Your task to perform on an android device: Show me popular videos on Youtube Image 0: 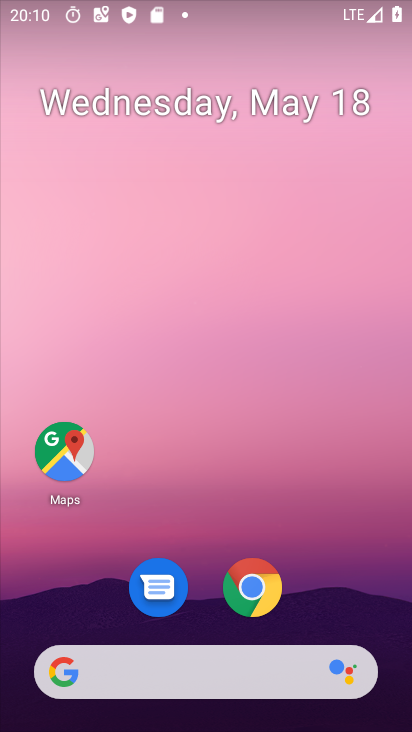
Step 0: drag from (204, 614) to (216, 42)
Your task to perform on an android device: Show me popular videos on Youtube Image 1: 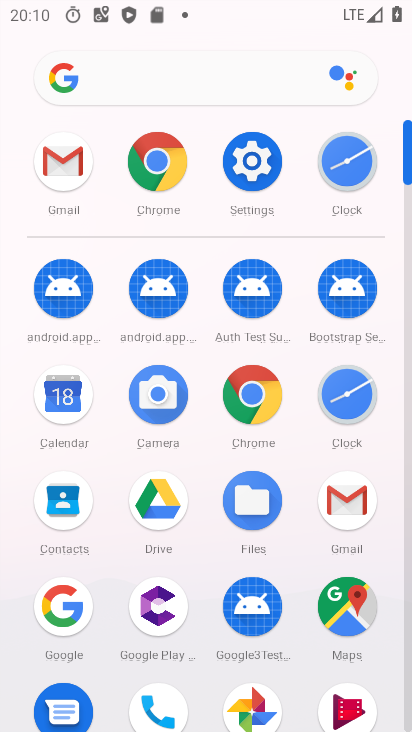
Step 1: drag from (199, 689) to (189, 227)
Your task to perform on an android device: Show me popular videos on Youtube Image 2: 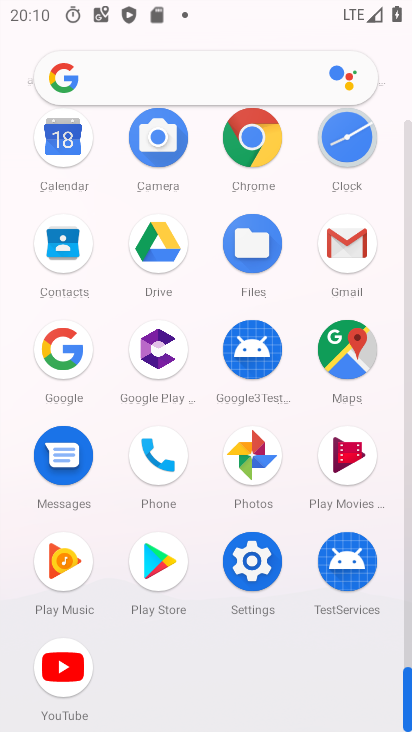
Step 2: click (73, 678)
Your task to perform on an android device: Show me popular videos on Youtube Image 3: 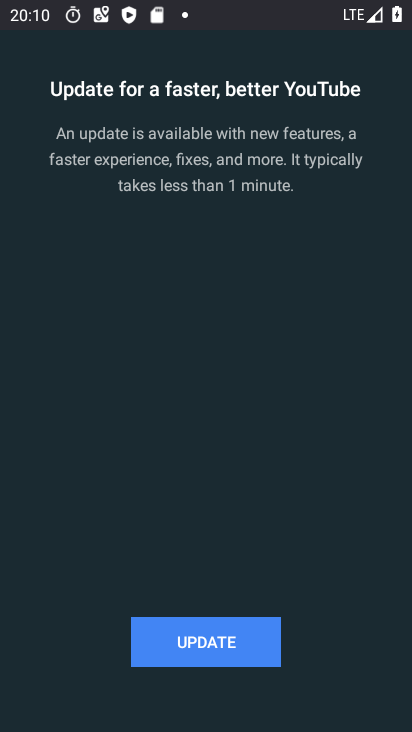
Step 3: click (166, 653)
Your task to perform on an android device: Show me popular videos on Youtube Image 4: 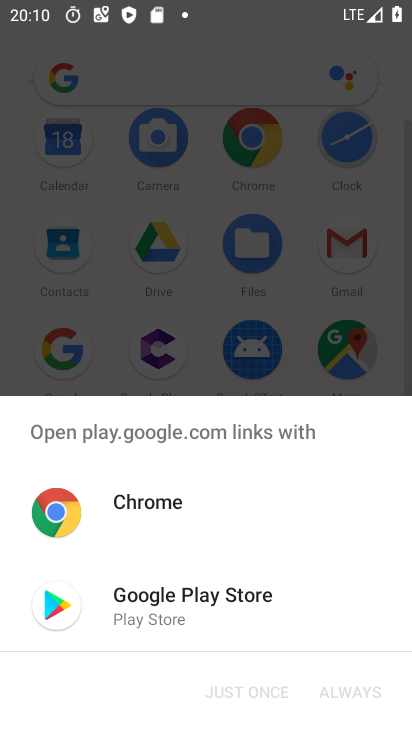
Step 4: click (149, 614)
Your task to perform on an android device: Show me popular videos on Youtube Image 5: 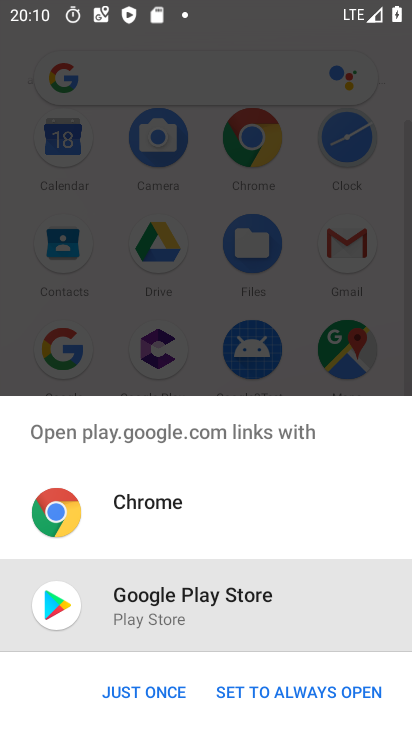
Step 5: click (141, 690)
Your task to perform on an android device: Show me popular videos on Youtube Image 6: 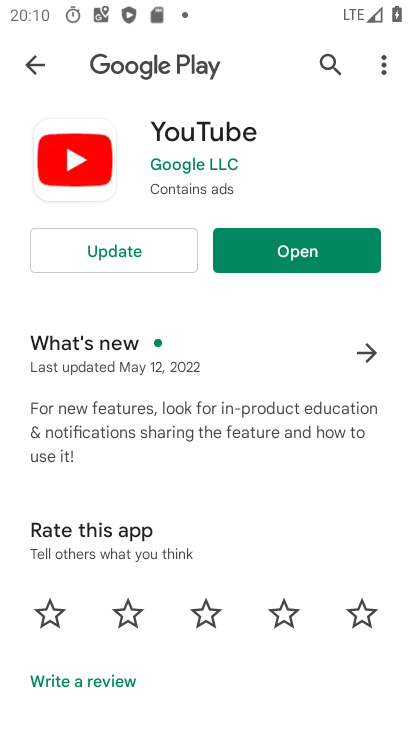
Step 6: click (159, 251)
Your task to perform on an android device: Show me popular videos on Youtube Image 7: 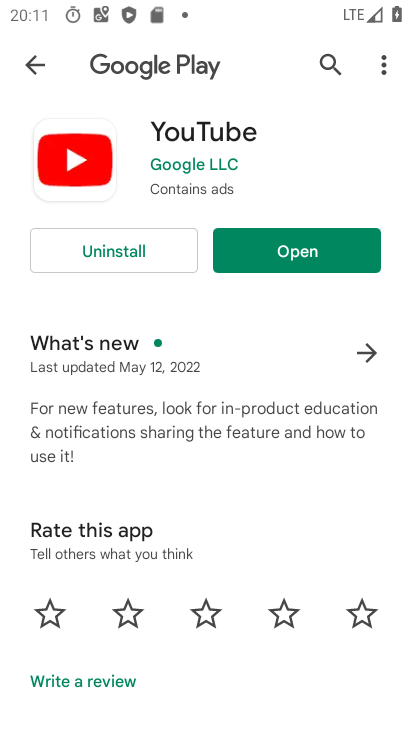
Step 7: click (297, 240)
Your task to perform on an android device: Show me popular videos on Youtube Image 8: 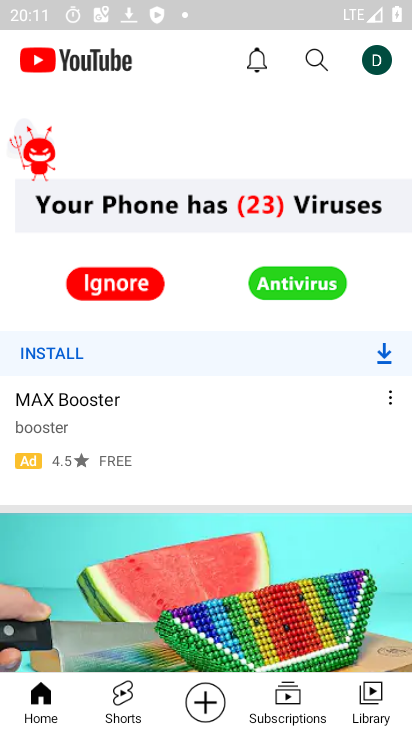
Step 8: drag from (83, 145) to (102, 627)
Your task to perform on an android device: Show me popular videos on Youtube Image 9: 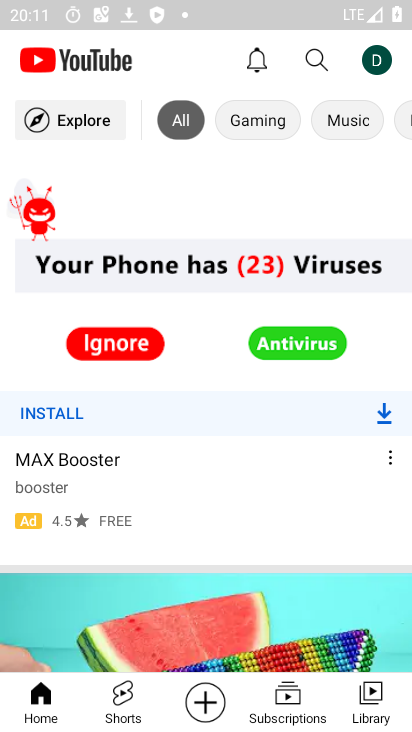
Step 9: click (84, 123)
Your task to perform on an android device: Show me popular videos on Youtube Image 10: 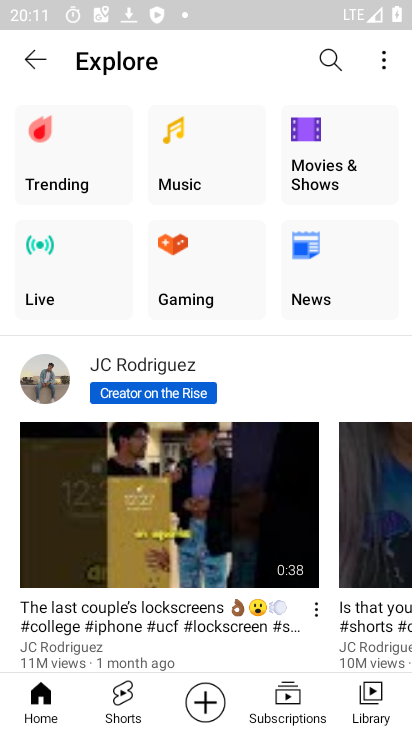
Step 10: click (64, 155)
Your task to perform on an android device: Show me popular videos on Youtube Image 11: 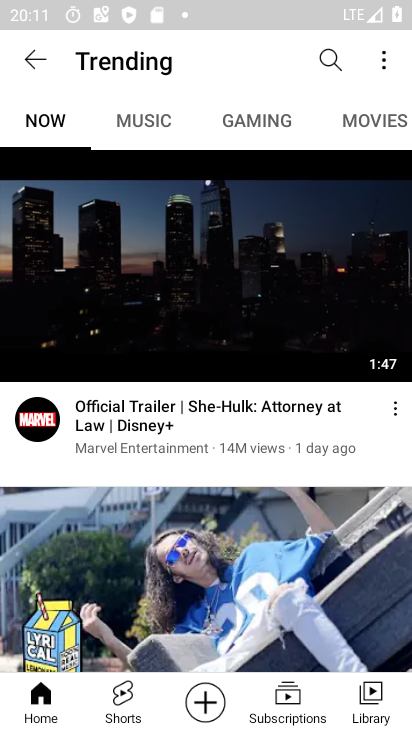
Step 11: task complete